Your task to perform on an android device: toggle improve location accuracy Image 0: 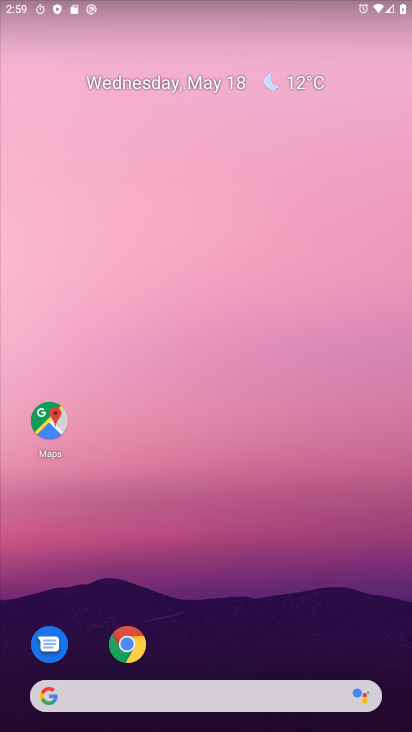
Step 0: drag from (383, 585) to (326, 330)
Your task to perform on an android device: toggle improve location accuracy Image 1: 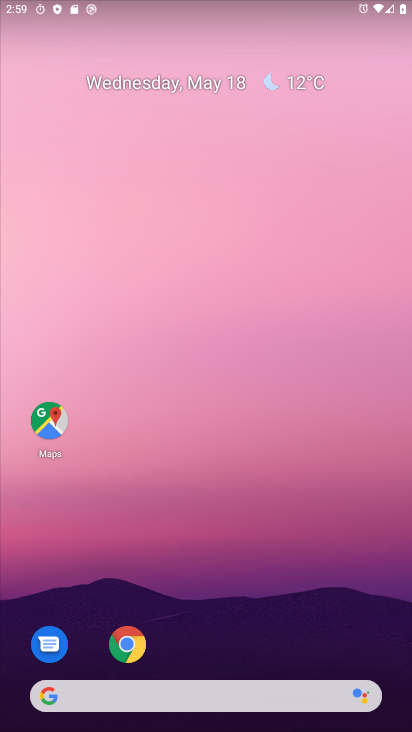
Step 1: drag from (395, 554) to (347, 253)
Your task to perform on an android device: toggle improve location accuracy Image 2: 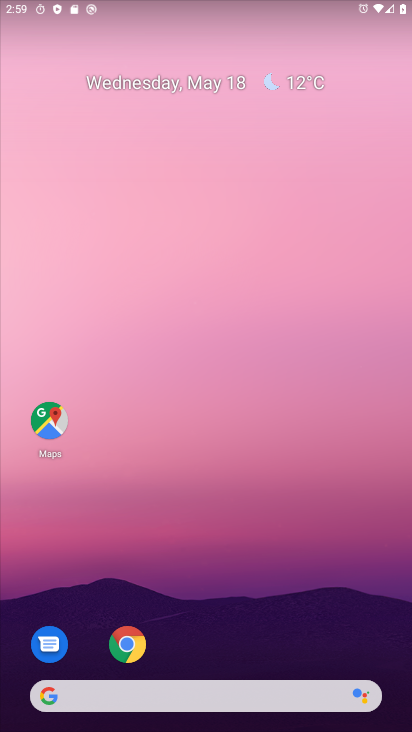
Step 2: drag from (389, 622) to (309, 298)
Your task to perform on an android device: toggle improve location accuracy Image 3: 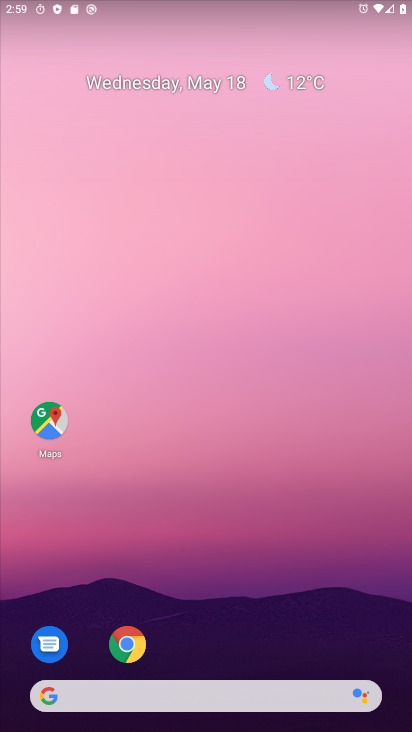
Step 3: drag from (399, 679) to (245, 65)
Your task to perform on an android device: toggle improve location accuracy Image 4: 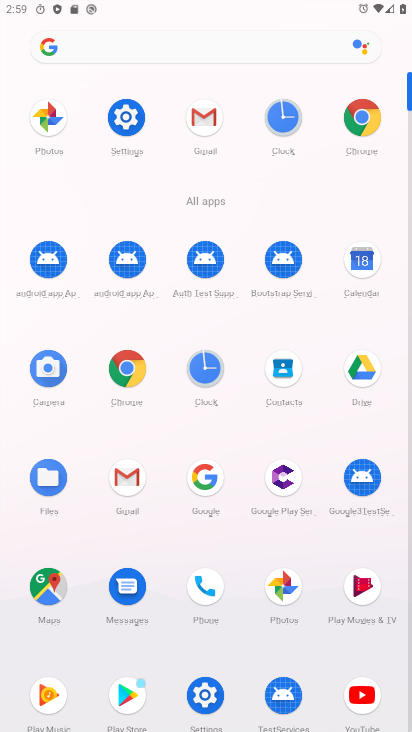
Step 4: click (124, 101)
Your task to perform on an android device: toggle improve location accuracy Image 5: 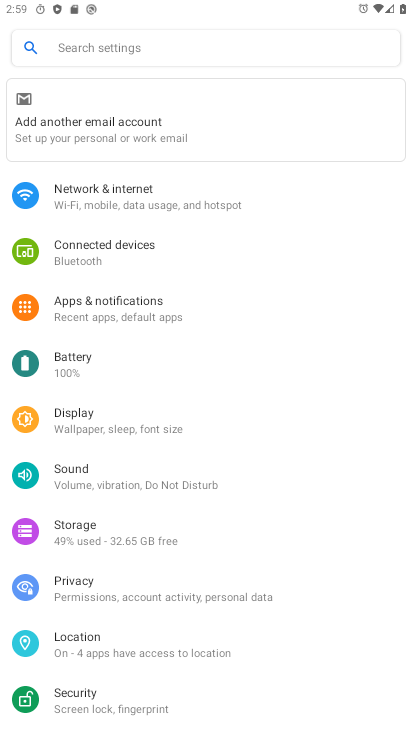
Step 5: click (62, 639)
Your task to perform on an android device: toggle improve location accuracy Image 6: 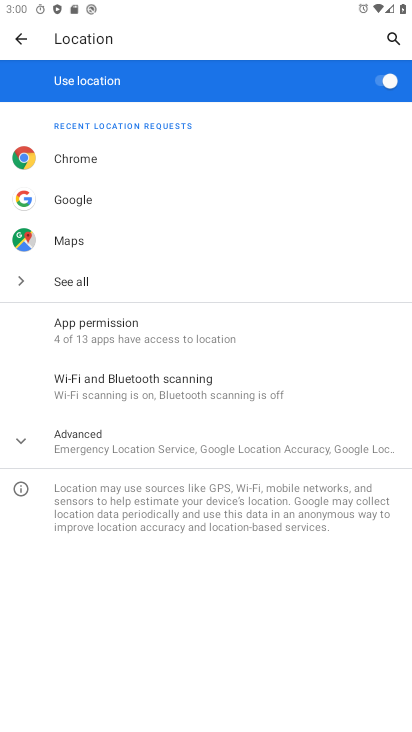
Step 6: task complete